Your task to perform on an android device: open a bookmark in the chrome app Image 0: 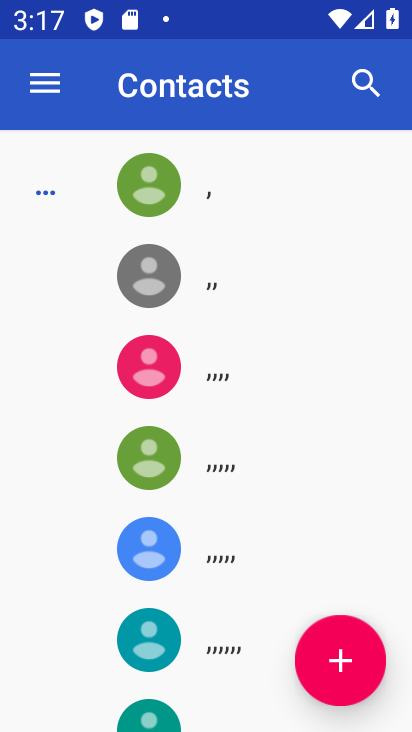
Step 0: press home button
Your task to perform on an android device: open a bookmark in the chrome app Image 1: 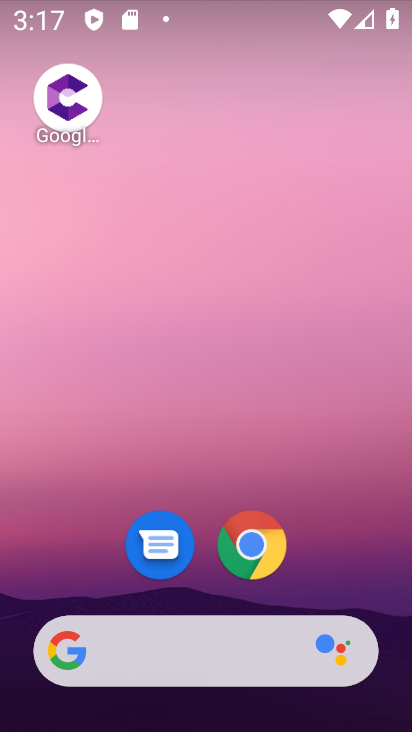
Step 1: click (250, 540)
Your task to perform on an android device: open a bookmark in the chrome app Image 2: 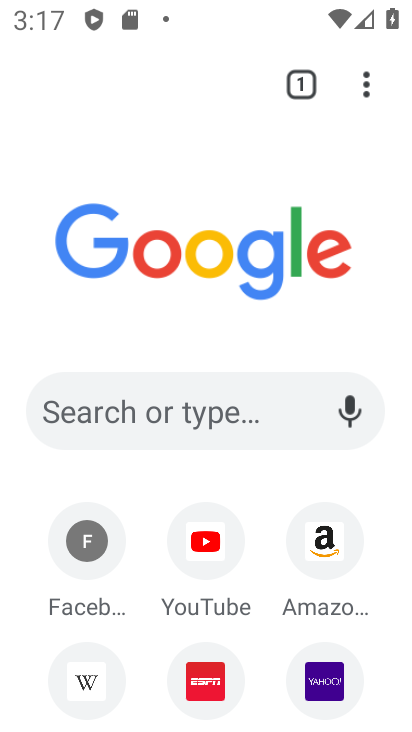
Step 2: click (370, 90)
Your task to perform on an android device: open a bookmark in the chrome app Image 3: 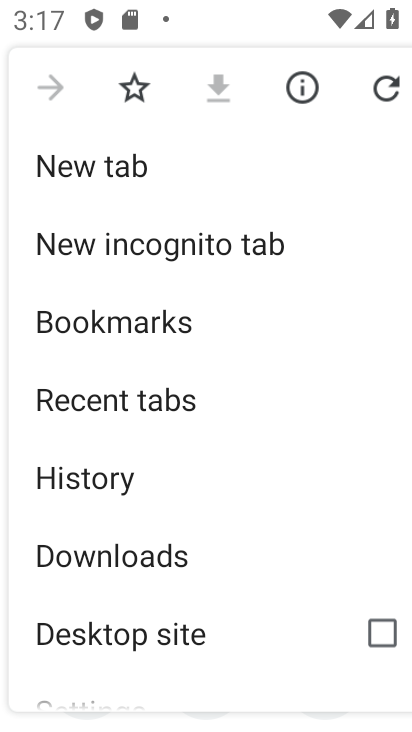
Step 3: click (139, 329)
Your task to perform on an android device: open a bookmark in the chrome app Image 4: 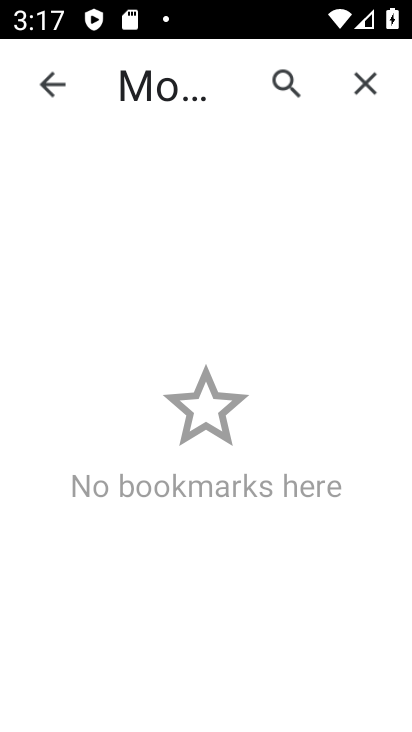
Step 4: task complete